Your task to perform on an android device: Where can I buy a nice beach hat? Image 0: 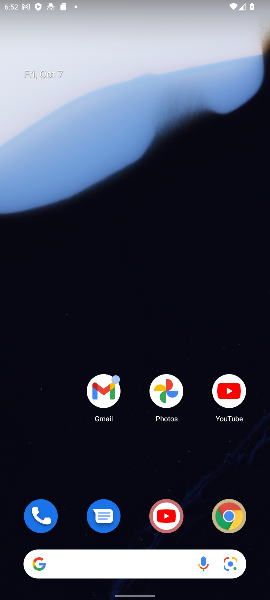
Step 0: click (106, 571)
Your task to perform on an android device: Where can I buy a nice beach hat? Image 1: 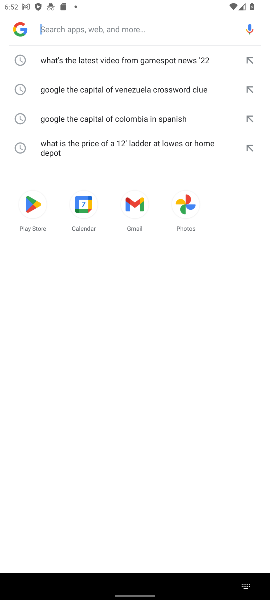
Step 1: type "Where can I buy a nice beach hat?"
Your task to perform on an android device: Where can I buy a nice beach hat? Image 2: 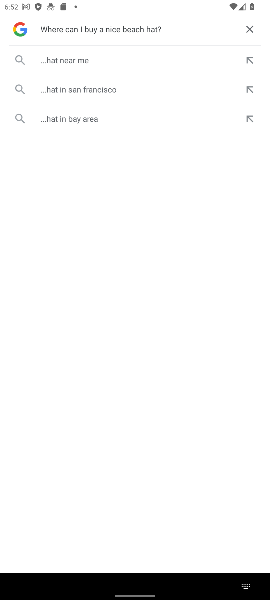
Step 2: click (91, 64)
Your task to perform on an android device: Where can I buy a nice beach hat? Image 3: 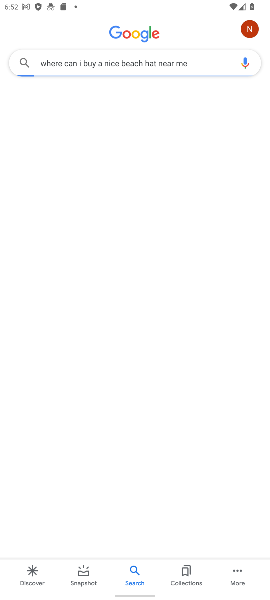
Step 3: task complete